Your task to perform on an android device: Open settings on Google Maps Image 0: 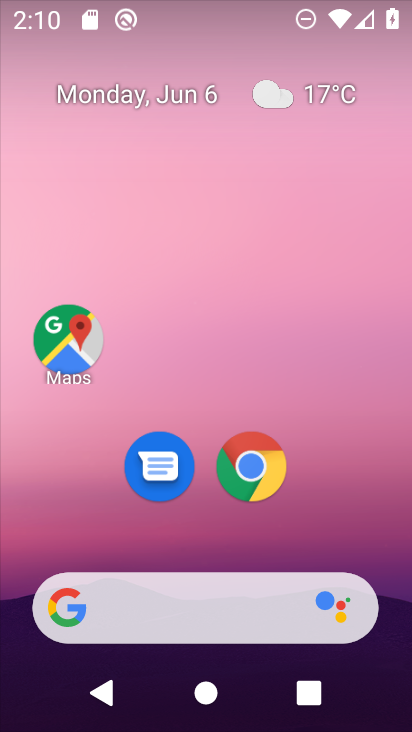
Step 0: click (70, 347)
Your task to perform on an android device: Open settings on Google Maps Image 1: 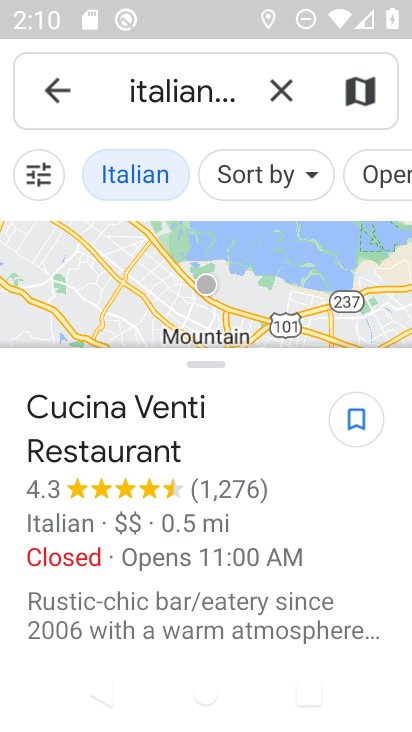
Step 1: click (291, 89)
Your task to perform on an android device: Open settings on Google Maps Image 2: 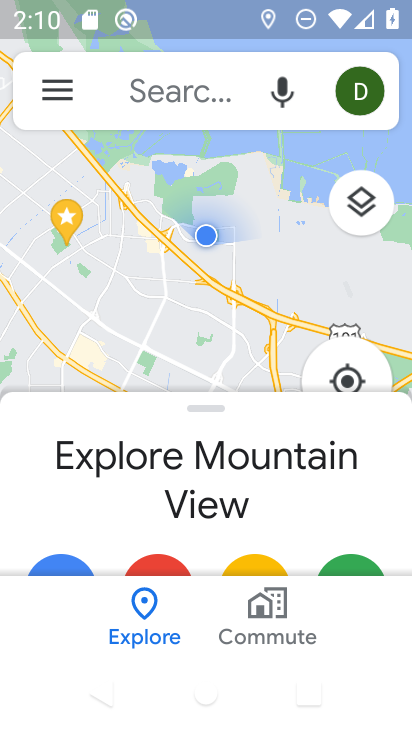
Step 2: click (60, 95)
Your task to perform on an android device: Open settings on Google Maps Image 3: 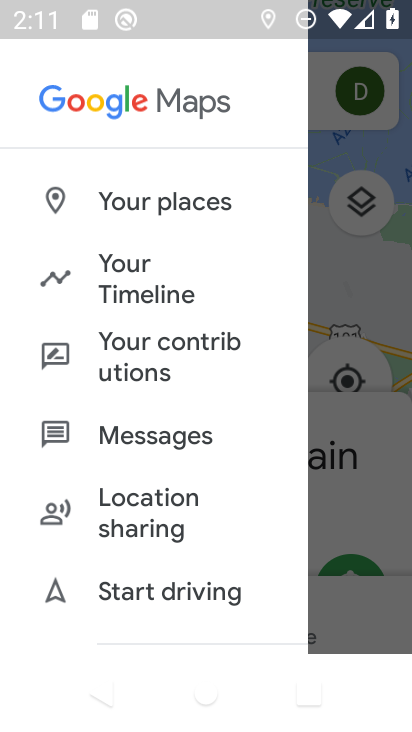
Step 3: drag from (84, 558) to (203, 58)
Your task to perform on an android device: Open settings on Google Maps Image 4: 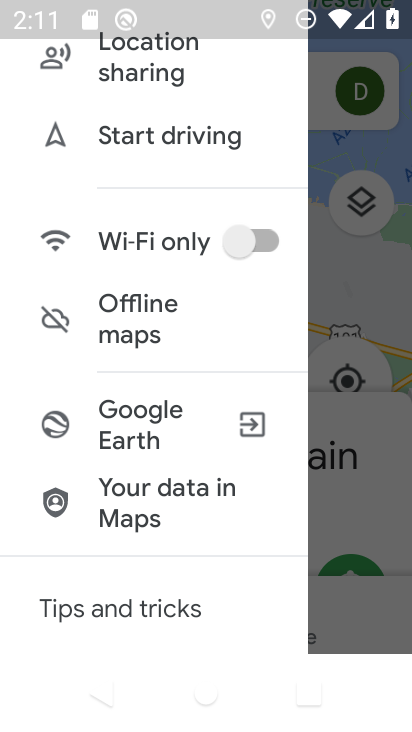
Step 4: drag from (120, 576) to (161, 224)
Your task to perform on an android device: Open settings on Google Maps Image 5: 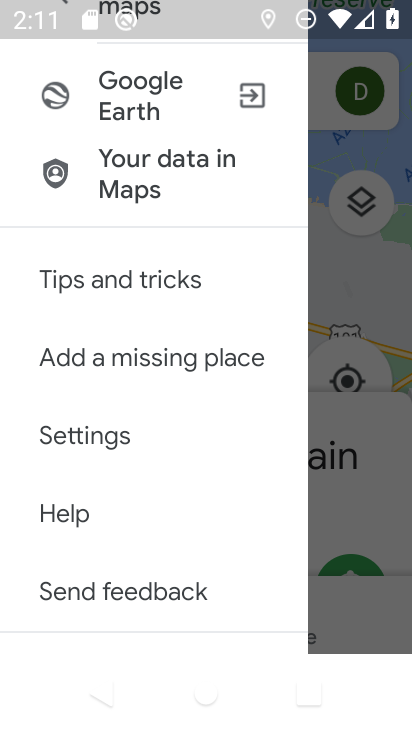
Step 5: click (81, 424)
Your task to perform on an android device: Open settings on Google Maps Image 6: 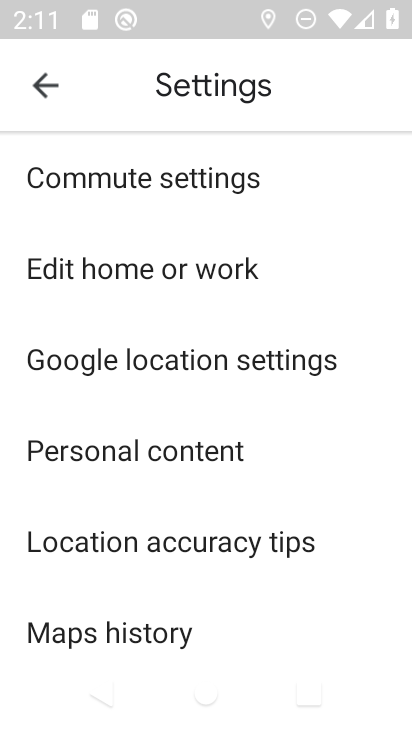
Step 6: task complete